Your task to perform on an android device: What is the recent news? Image 0: 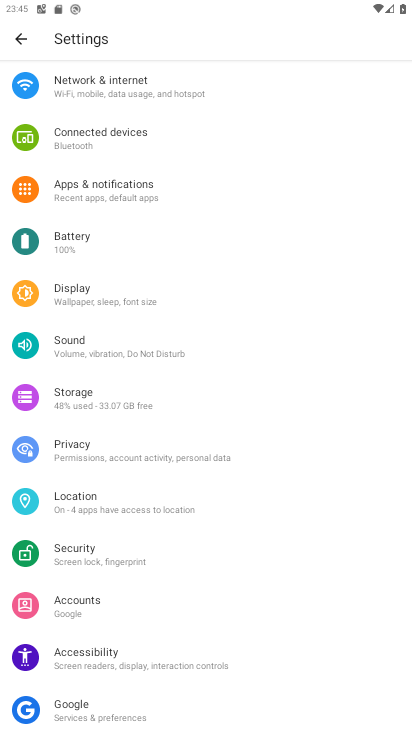
Step 0: press home button
Your task to perform on an android device: What is the recent news? Image 1: 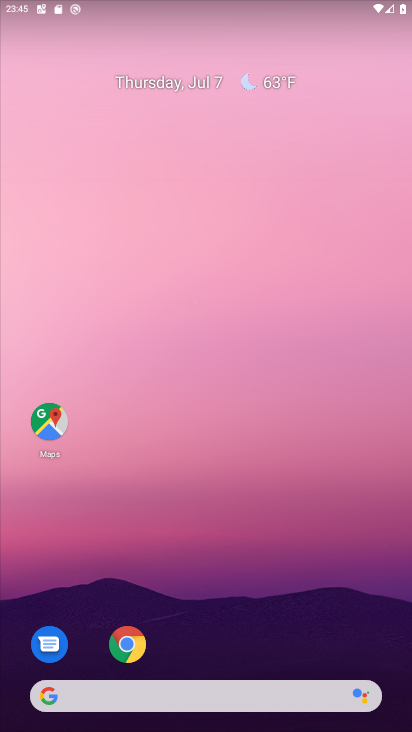
Step 1: task complete